Your task to perform on an android device: Open settings Image 0: 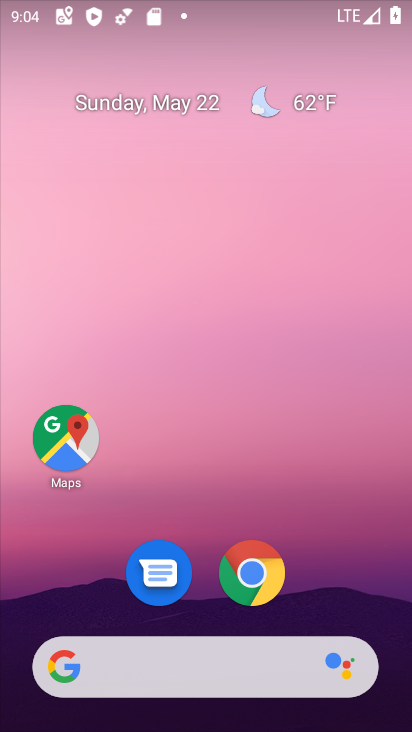
Step 0: drag from (227, 162) to (252, 6)
Your task to perform on an android device: Open settings Image 1: 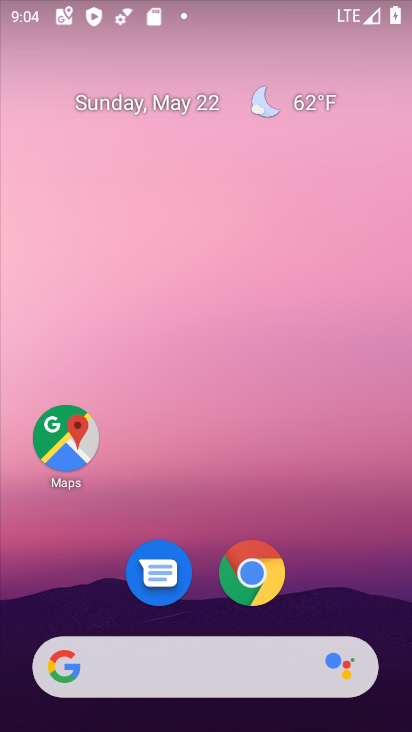
Step 1: drag from (292, 616) to (297, 26)
Your task to perform on an android device: Open settings Image 2: 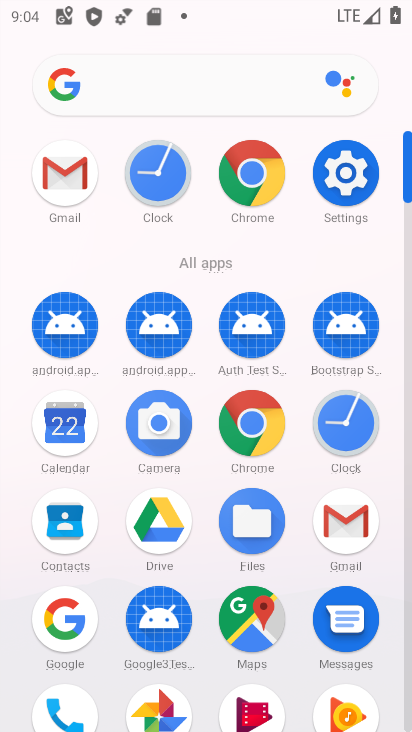
Step 2: click (362, 186)
Your task to perform on an android device: Open settings Image 3: 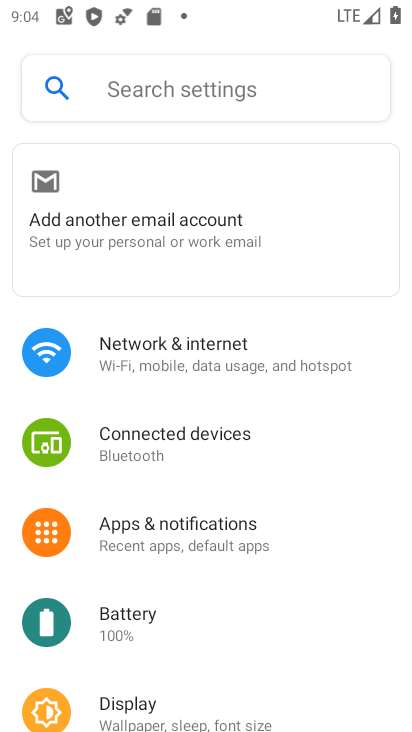
Step 3: task complete